Your task to perform on an android device: Show me productivity apps on the Play Store Image 0: 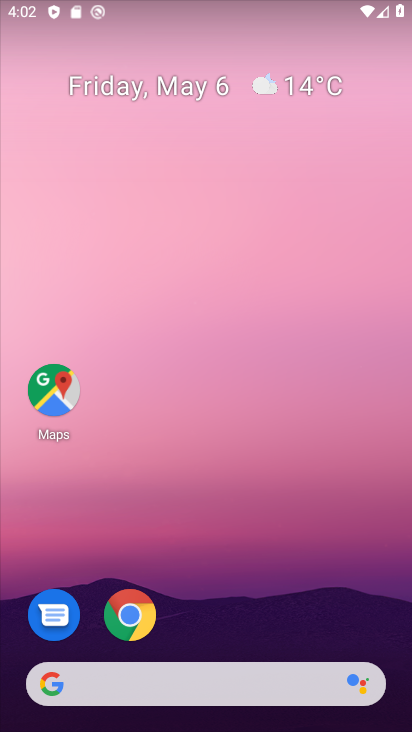
Step 0: drag from (317, 615) to (294, 98)
Your task to perform on an android device: Show me productivity apps on the Play Store Image 1: 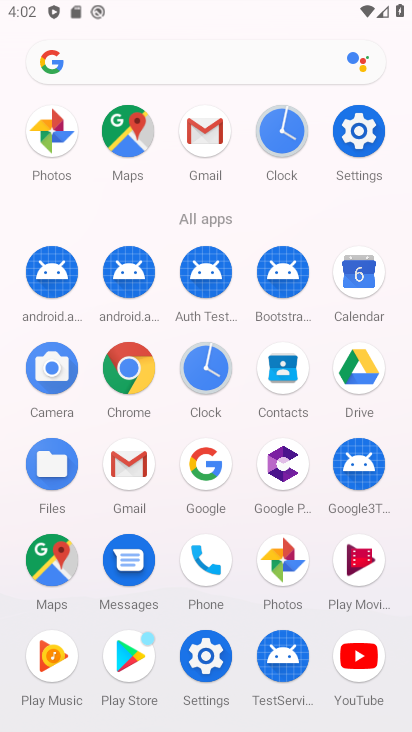
Step 1: click (125, 655)
Your task to perform on an android device: Show me productivity apps on the Play Store Image 2: 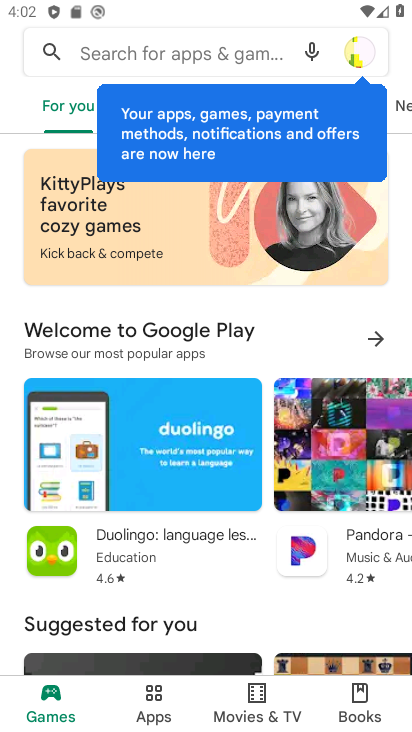
Step 2: click (147, 721)
Your task to perform on an android device: Show me productivity apps on the Play Store Image 3: 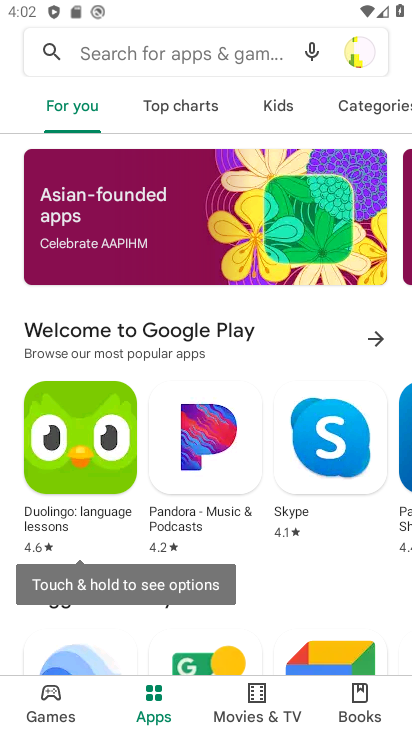
Step 3: click (171, 108)
Your task to perform on an android device: Show me productivity apps on the Play Store Image 4: 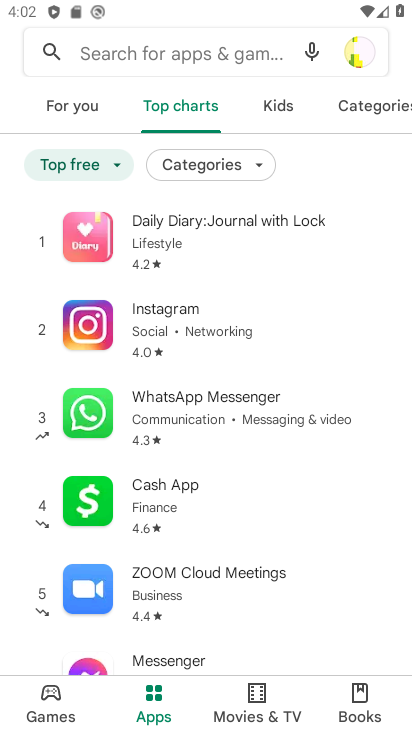
Step 4: click (198, 165)
Your task to perform on an android device: Show me productivity apps on the Play Store Image 5: 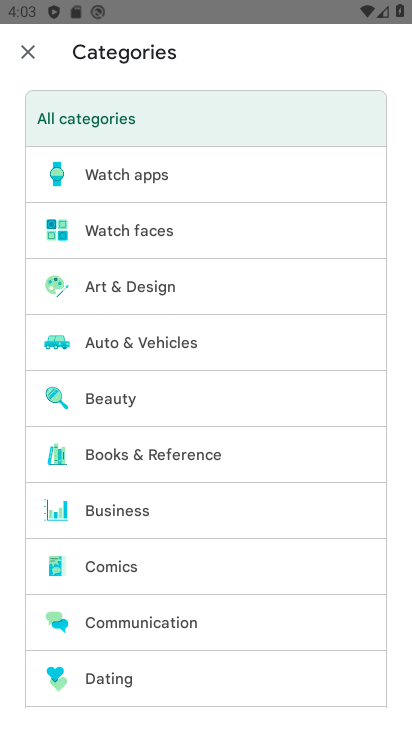
Step 5: drag from (197, 593) to (196, 187)
Your task to perform on an android device: Show me productivity apps on the Play Store Image 6: 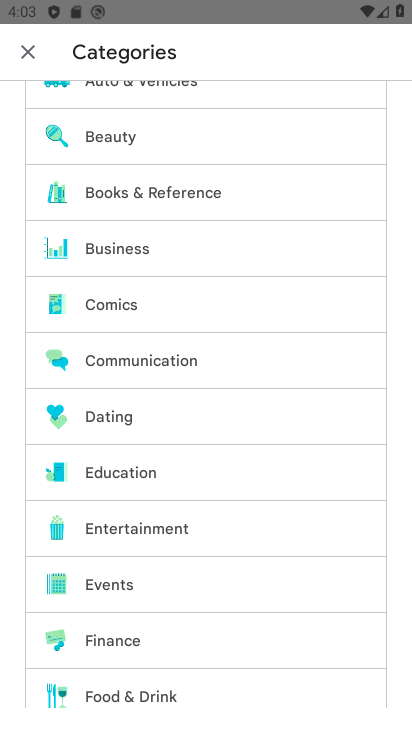
Step 6: drag from (197, 653) to (197, 406)
Your task to perform on an android device: Show me productivity apps on the Play Store Image 7: 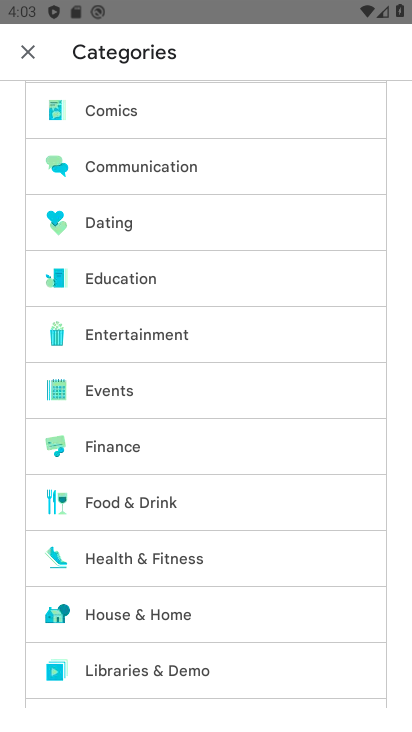
Step 7: drag from (178, 705) to (186, 329)
Your task to perform on an android device: Show me productivity apps on the Play Store Image 8: 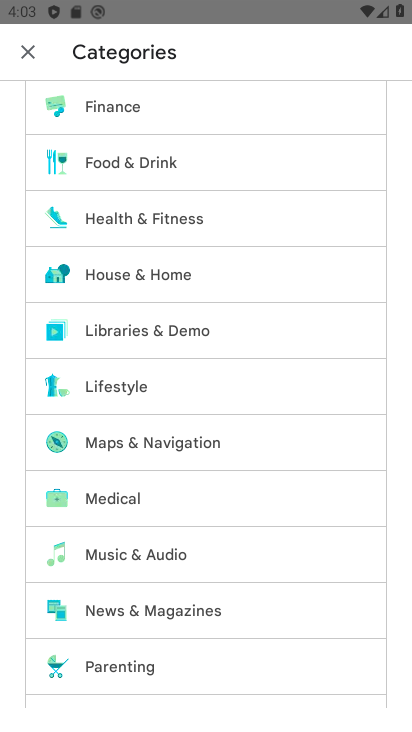
Step 8: drag from (171, 621) to (221, 263)
Your task to perform on an android device: Show me productivity apps on the Play Store Image 9: 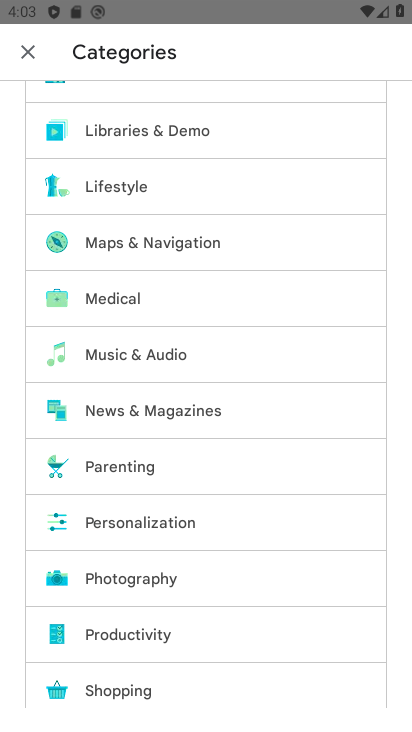
Step 9: click (196, 626)
Your task to perform on an android device: Show me productivity apps on the Play Store Image 10: 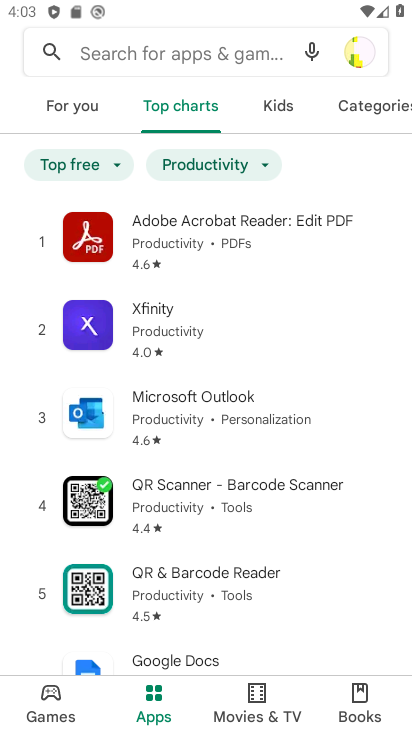
Step 10: task complete